Your task to perform on an android device: open the mobile data screen to see how much data has been used Image 0: 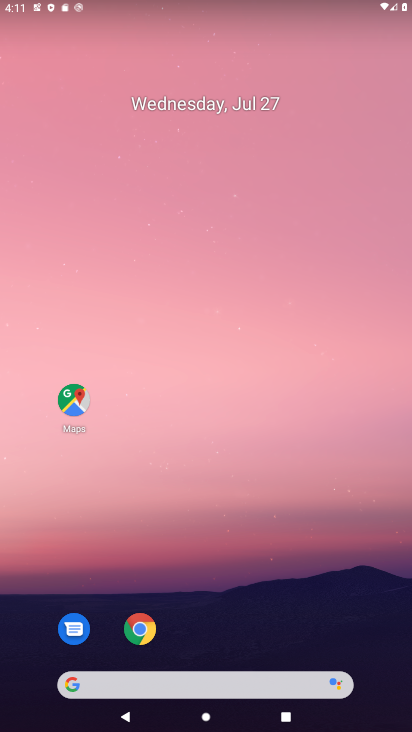
Step 0: drag from (204, 590) to (205, 0)
Your task to perform on an android device: open the mobile data screen to see how much data has been used Image 1: 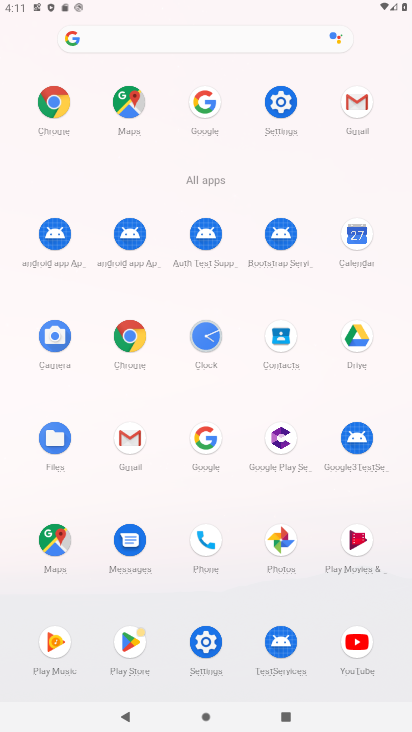
Step 1: click (277, 115)
Your task to perform on an android device: open the mobile data screen to see how much data has been used Image 2: 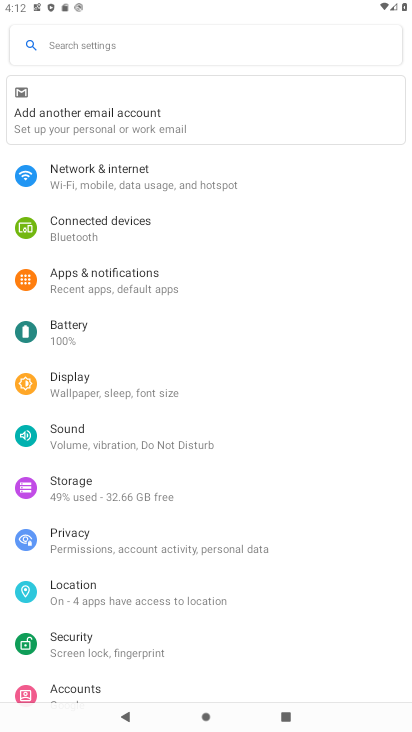
Step 2: click (108, 190)
Your task to perform on an android device: open the mobile data screen to see how much data has been used Image 3: 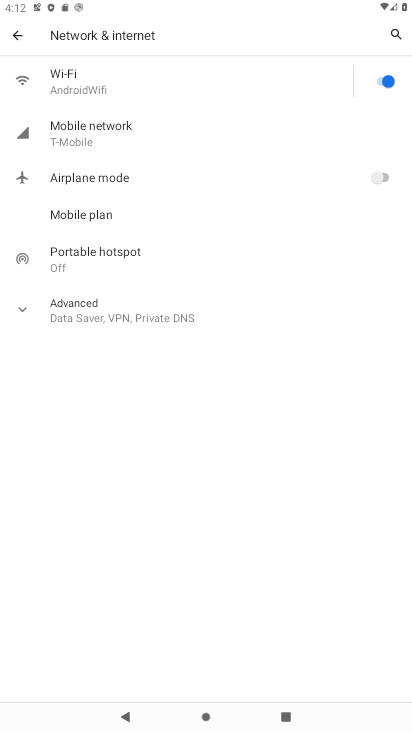
Step 3: click (92, 146)
Your task to perform on an android device: open the mobile data screen to see how much data has been used Image 4: 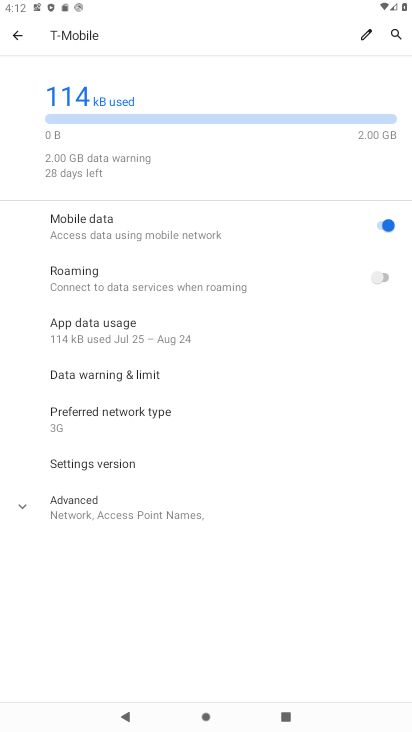
Step 4: task complete